Your task to perform on an android device: Open Chrome and go to the settings page Image 0: 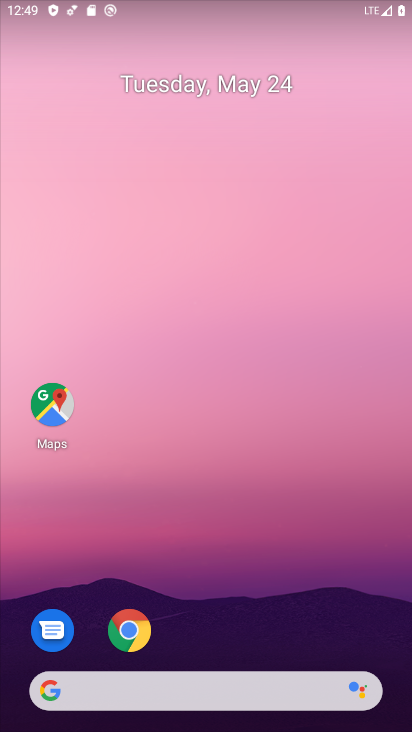
Step 0: drag from (276, 652) to (271, 147)
Your task to perform on an android device: Open Chrome and go to the settings page Image 1: 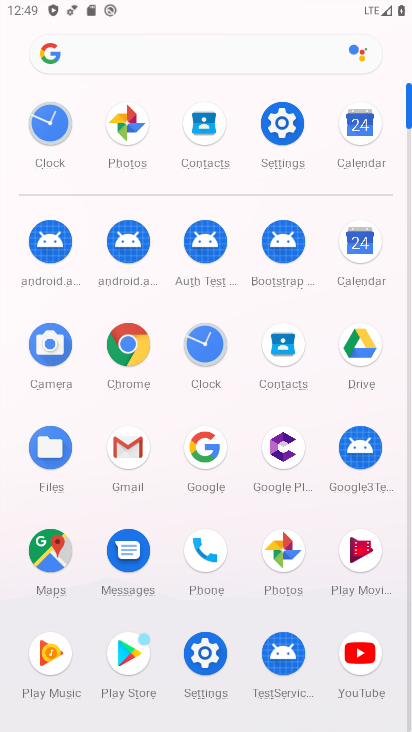
Step 1: click (138, 355)
Your task to perform on an android device: Open Chrome and go to the settings page Image 2: 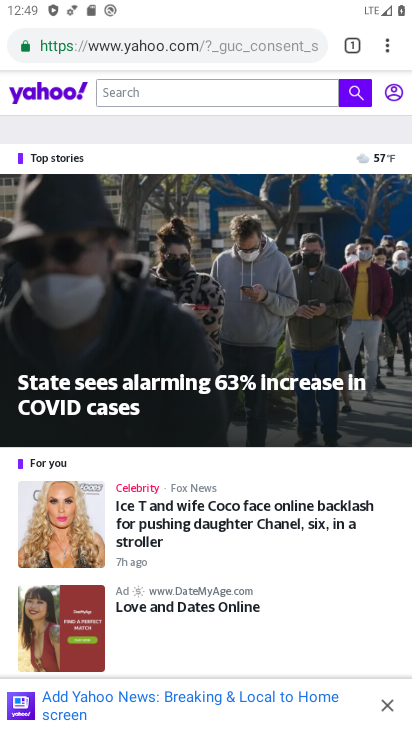
Step 2: click (389, 47)
Your task to perform on an android device: Open Chrome and go to the settings page Image 3: 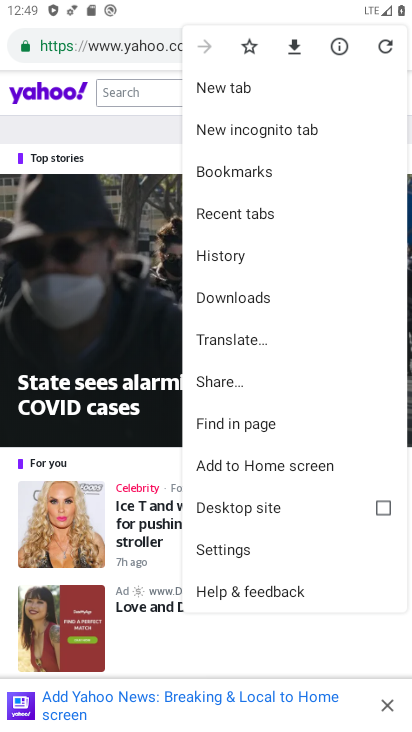
Step 3: click (253, 542)
Your task to perform on an android device: Open Chrome and go to the settings page Image 4: 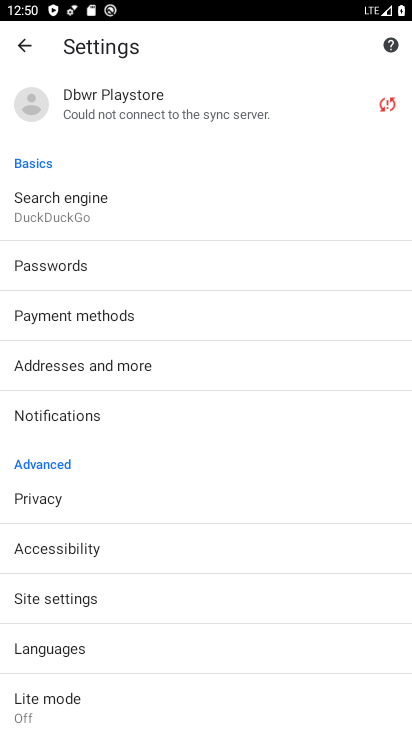
Step 4: task complete